Your task to perform on an android device: find snoozed emails in the gmail app Image 0: 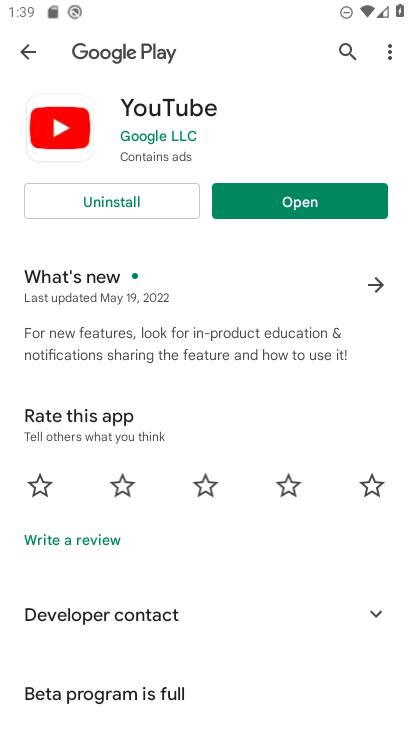
Step 0: press home button
Your task to perform on an android device: find snoozed emails in the gmail app Image 1: 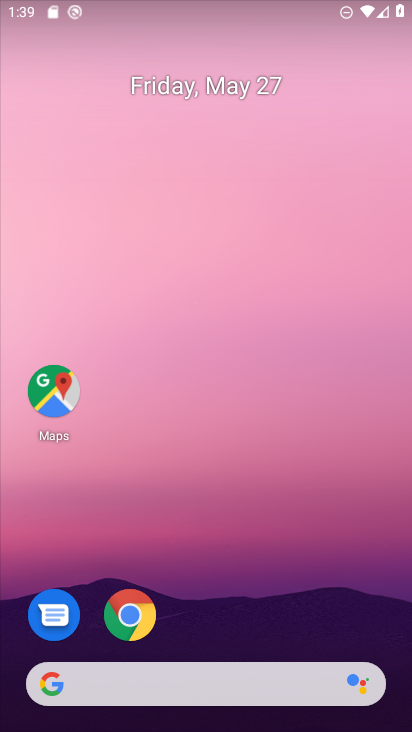
Step 1: drag from (307, 602) to (284, 217)
Your task to perform on an android device: find snoozed emails in the gmail app Image 2: 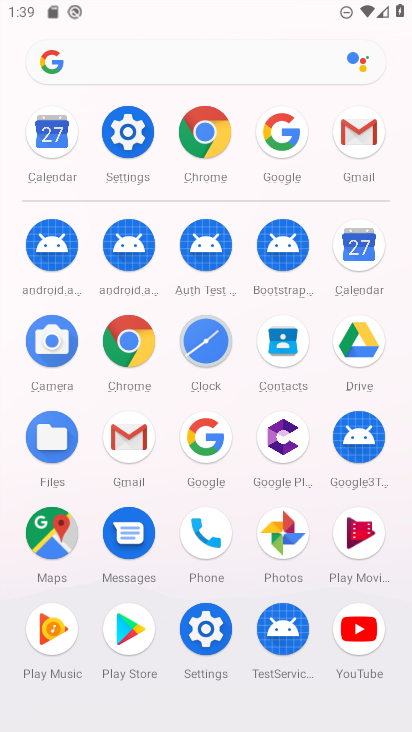
Step 2: click (139, 447)
Your task to perform on an android device: find snoozed emails in the gmail app Image 3: 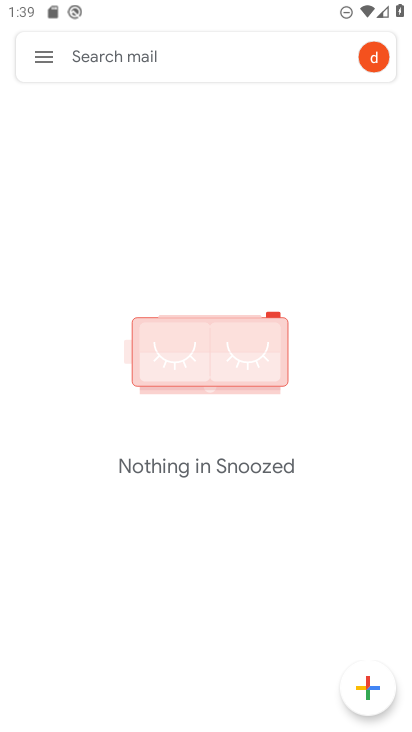
Step 3: click (55, 60)
Your task to perform on an android device: find snoozed emails in the gmail app Image 4: 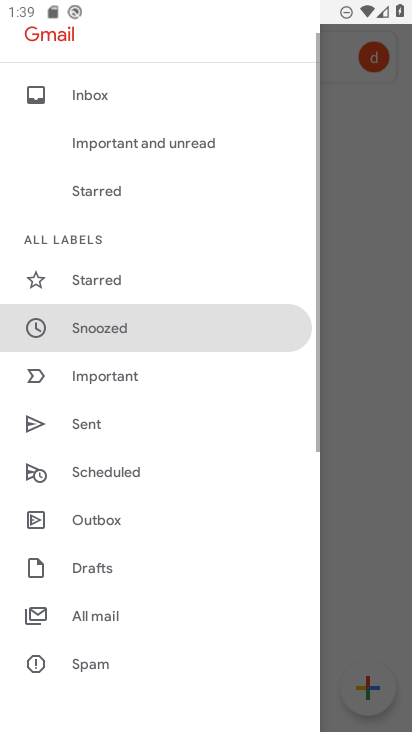
Step 4: task complete